Your task to perform on an android device: Go to Wikipedia Image 0: 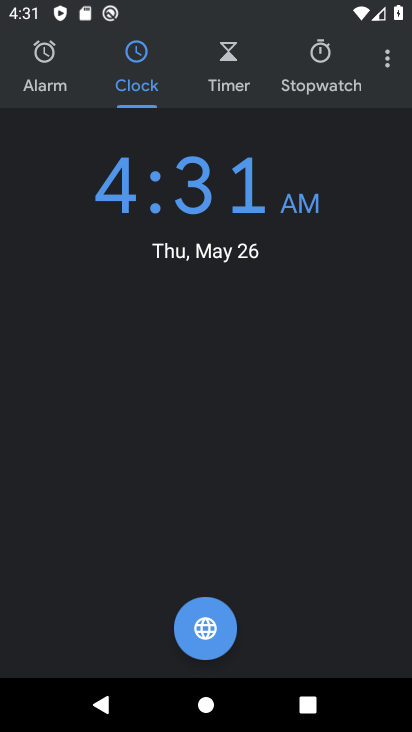
Step 0: press home button
Your task to perform on an android device: Go to Wikipedia Image 1: 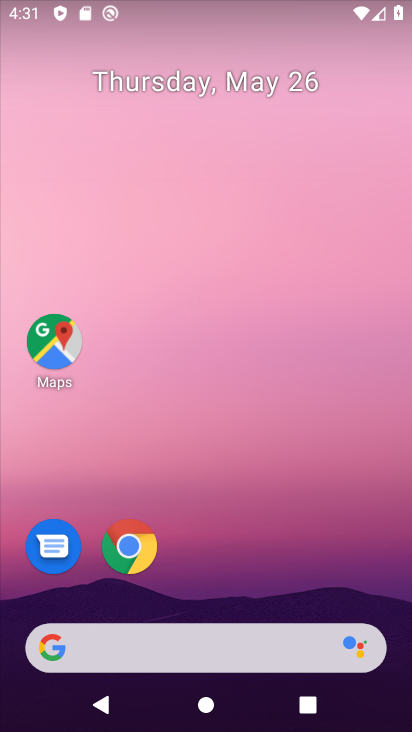
Step 1: click (146, 557)
Your task to perform on an android device: Go to Wikipedia Image 2: 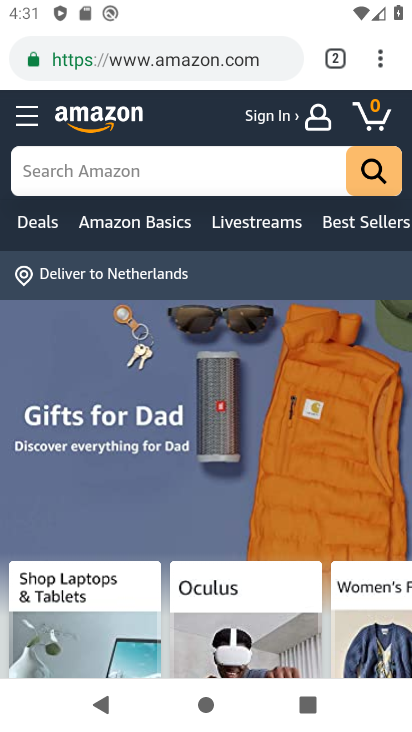
Step 2: click (384, 65)
Your task to perform on an android device: Go to Wikipedia Image 3: 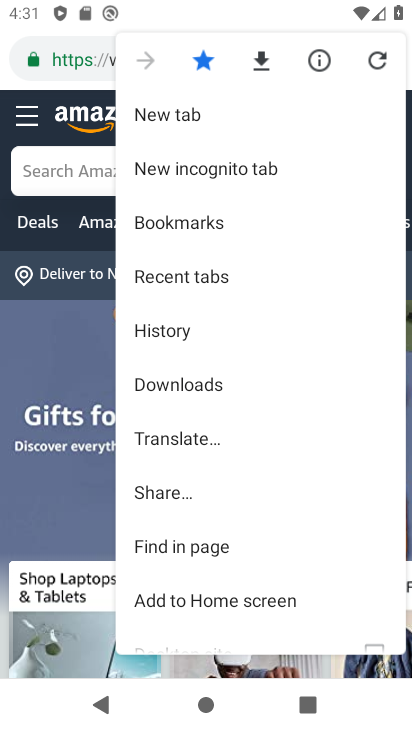
Step 3: click (203, 131)
Your task to perform on an android device: Go to Wikipedia Image 4: 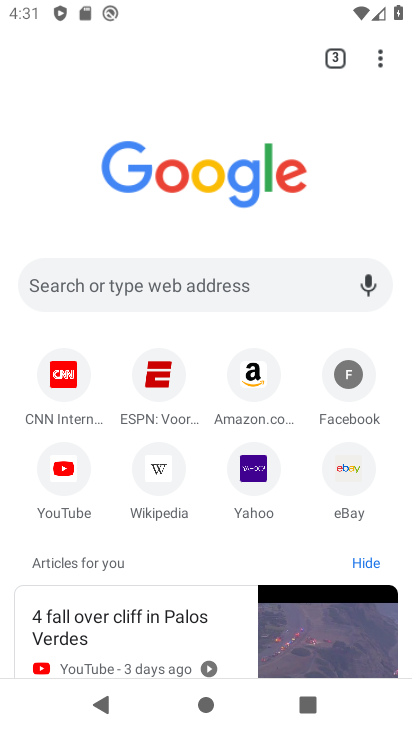
Step 4: click (174, 476)
Your task to perform on an android device: Go to Wikipedia Image 5: 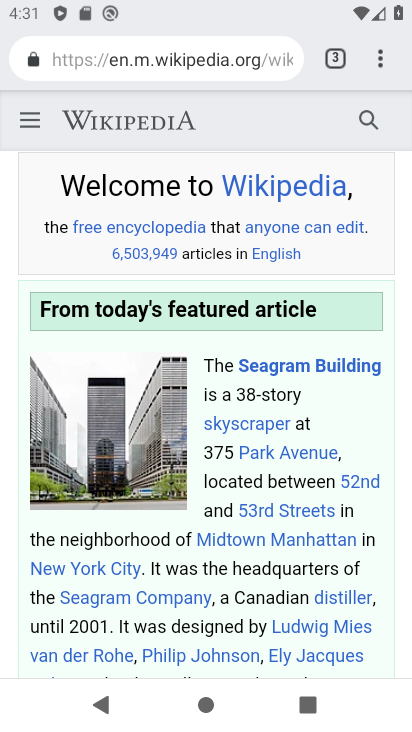
Step 5: task complete